Your task to perform on an android device: see sites visited before in the chrome app Image 0: 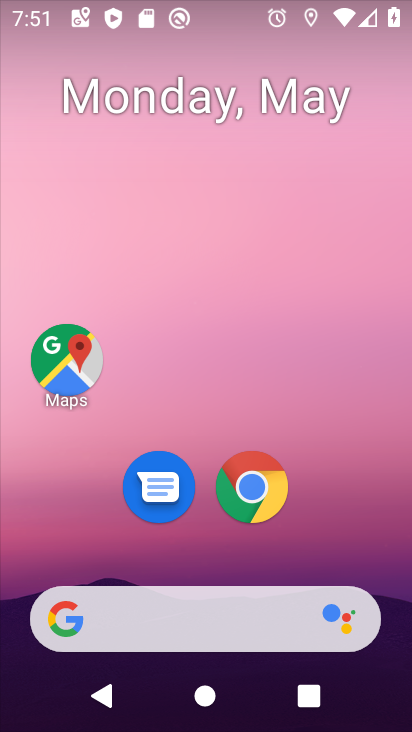
Step 0: press home button
Your task to perform on an android device: see sites visited before in the chrome app Image 1: 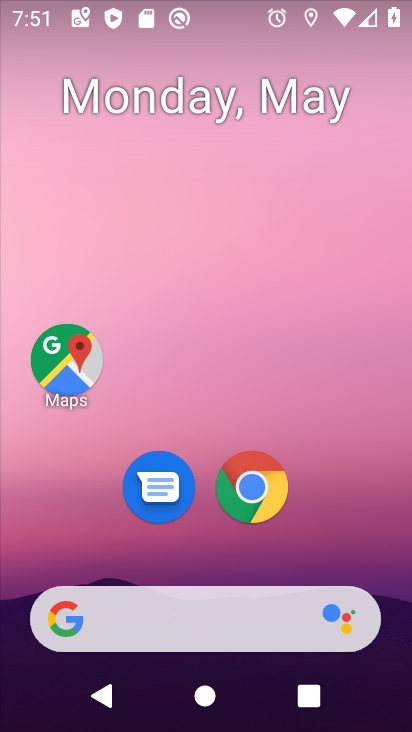
Step 1: click (264, 465)
Your task to perform on an android device: see sites visited before in the chrome app Image 2: 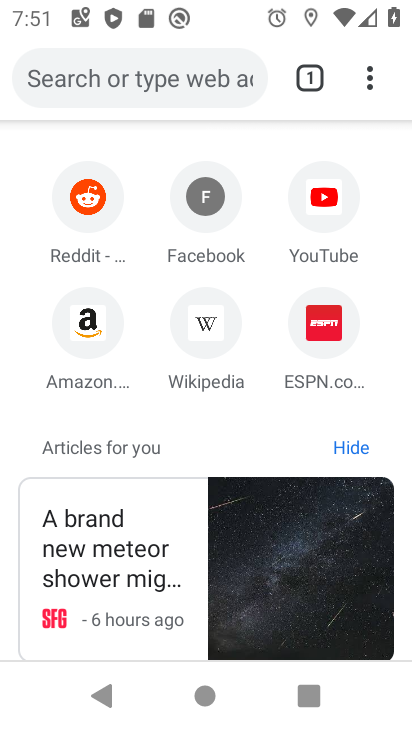
Step 2: task complete